Your task to perform on an android device: Search for the new Apple Watch on Best Buy Image 0: 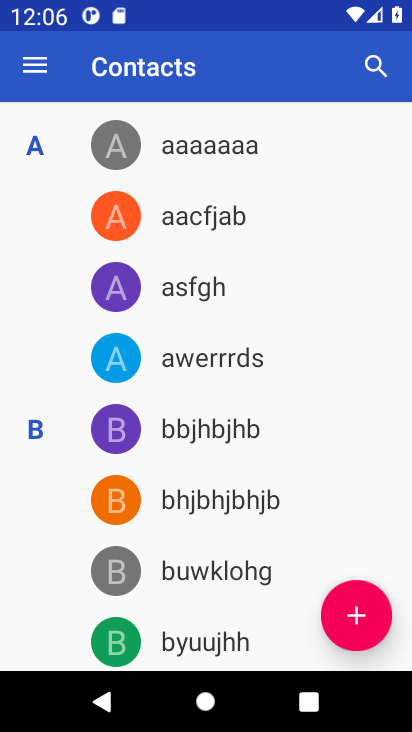
Step 0: press home button
Your task to perform on an android device: Search for the new Apple Watch on Best Buy Image 1: 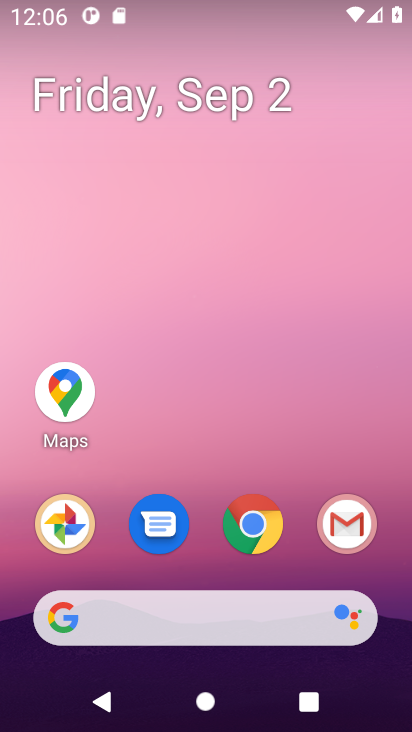
Step 1: click (193, 613)
Your task to perform on an android device: Search for the new Apple Watch on Best Buy Image 2: 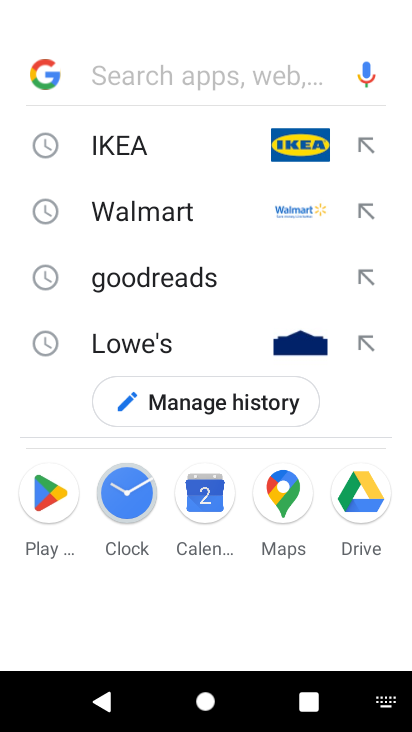
Step 2: press enter
Your task to perform on an android device: Search for the new Apple Watch on Best Buy Image 3: 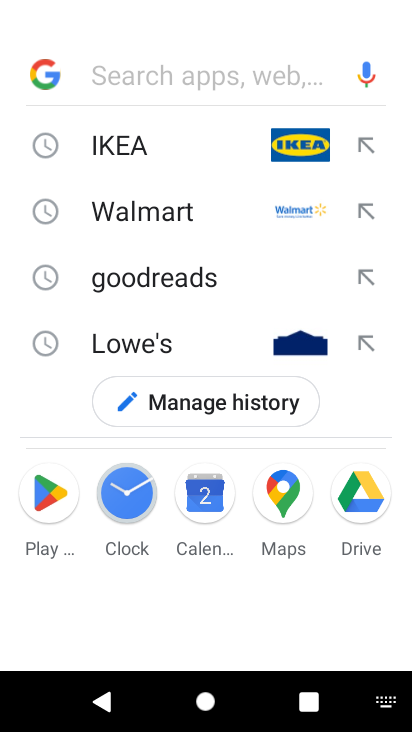
Step 3: type "best buy"
Your task to perform on an android device: Search for the new Apple Watch on Best Buy Image 4: 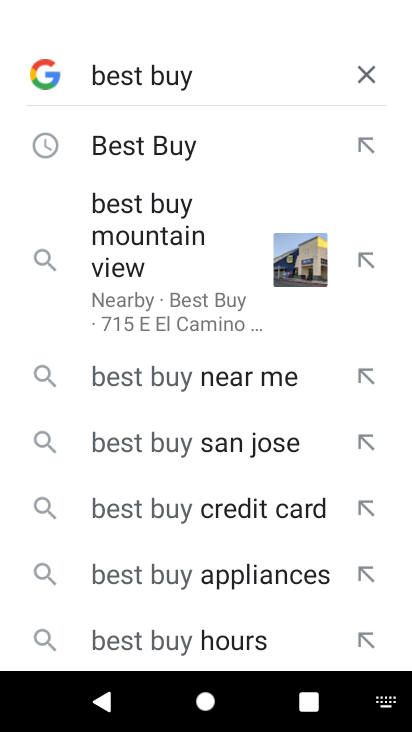
Step 4: click (177, 149)
Your task to perform on an android device: Search for the new Apple Watch on Best Buy Image 5: 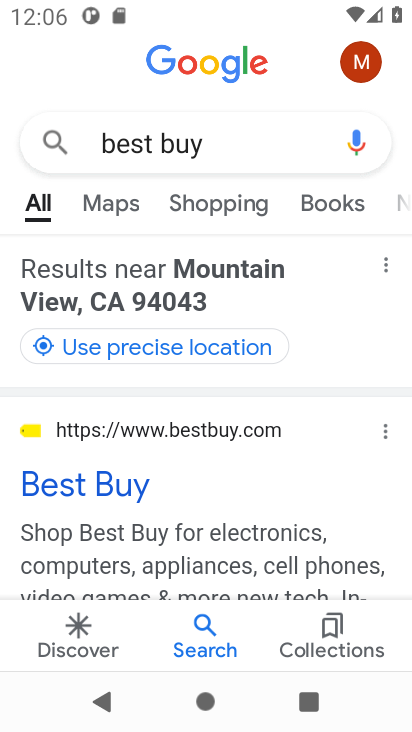
Step 5: click (107, 479)
Your task to perform on an android device: Search for the new Apple Watch on Best Buy Image 6: 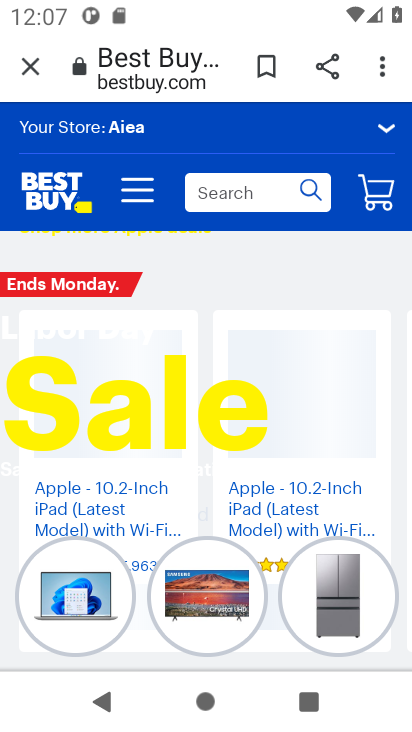
Step 6: click (249, 191)
Your task to perform on an android device: Search for the new Apple Watch on Best Buy Image 7: 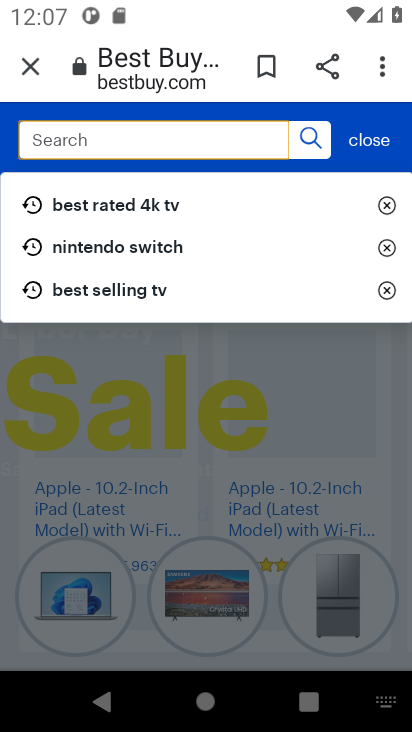
Step 7: press enter
Your task to perform on an android device: Search for the new Apple Watch on Best Buy Image 8: 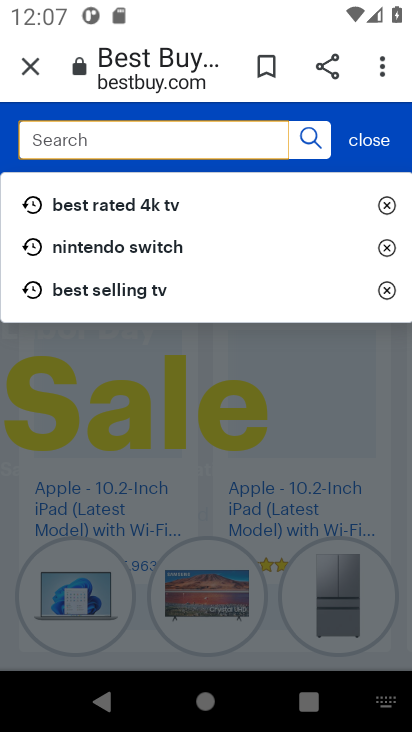
Step 8: type " Apple Watch"
Your task to perform on an android device: Search for the new Apple Watch on Best Buy Image 9: 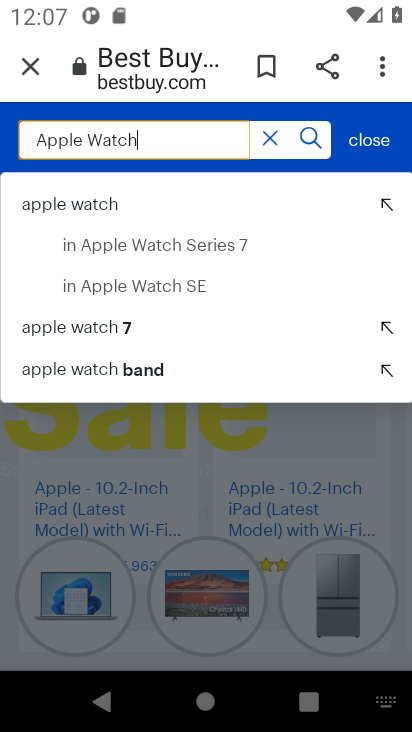
Step 9: click (313, 135)
Your task to perform on an android device: Search for the new Apple Watch on Best Buy Image 10: 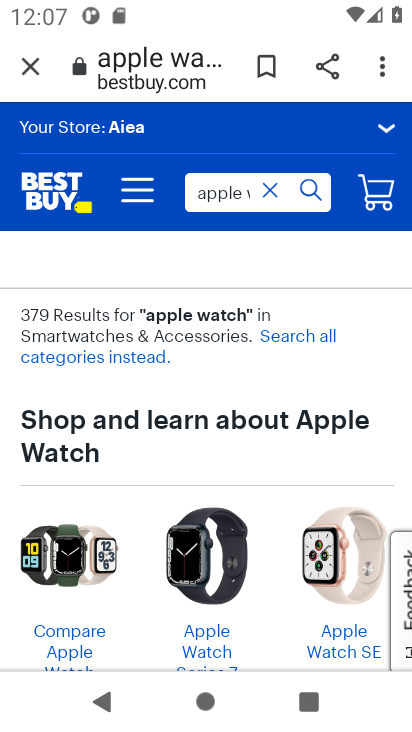
Step 10: task complete